Your task to perform on an android device: Go to settings Image 0: 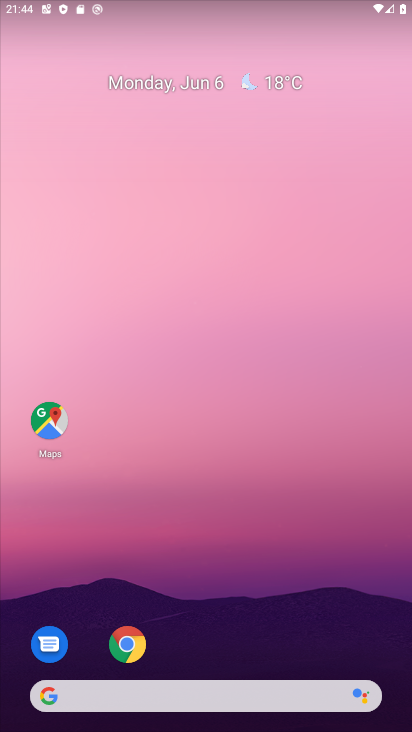
Step 0: drag from (384, 660) to (290, 243)
Your task to perform on an android device: Go to settings Image 1: 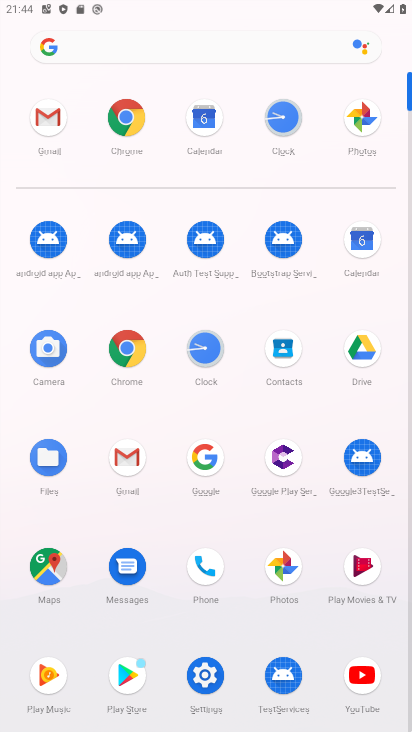
Step 1: click (212, 667)
Your task to perform on an android device: Go to settings Image 2: 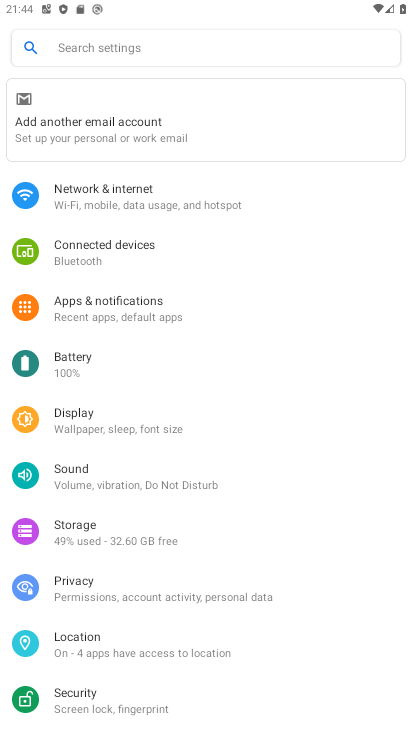
Step 2: task complete